Your task to perform on an android device: turn pop-ups off in chrome Image 0: 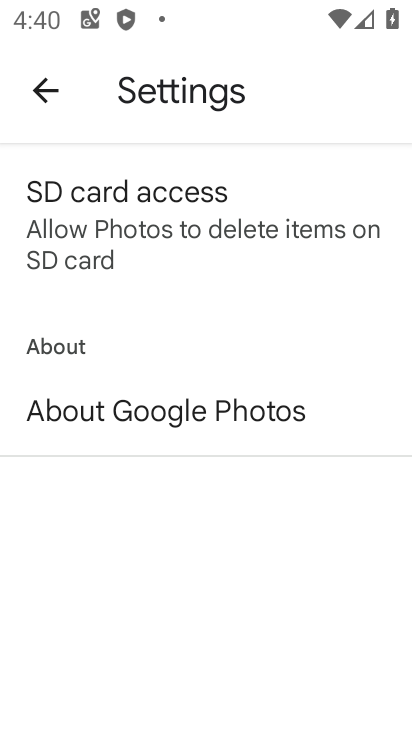
Step 0: press home button
Your task to perform on an android device: turn pop-ups off in chrome Image 1: 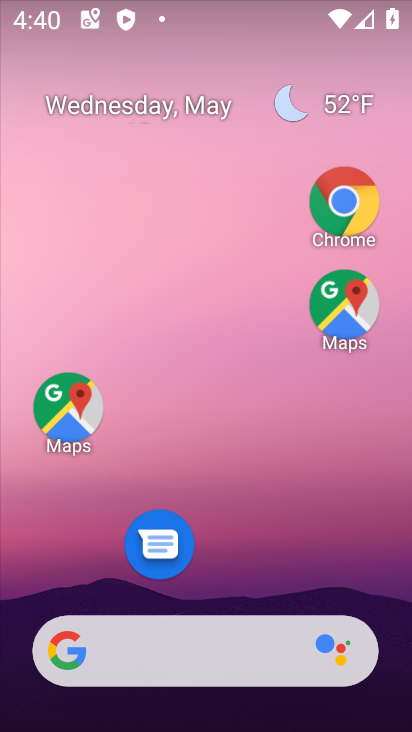
Step 1: click (251, 300)
Your task to perform on an android device: turn pop-ups off in chrome Image 2: 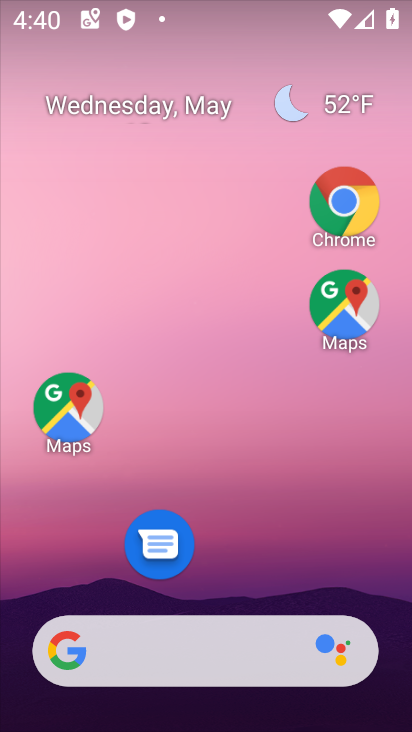
Step 2: drag from (231, 578) to (255, 143)
Your task to perform on an android device: turn pop-ups off in chrome Image 3: 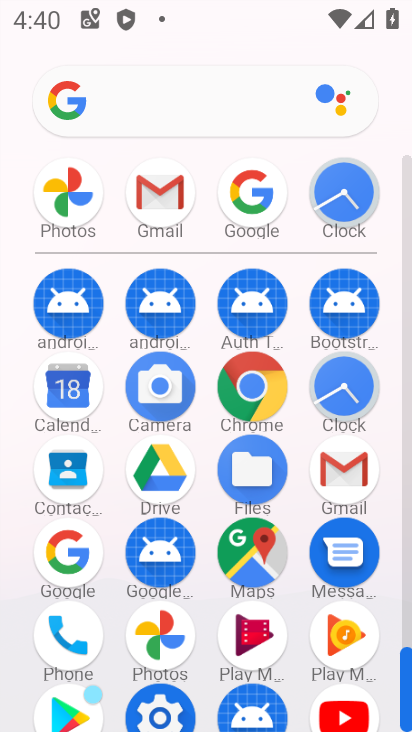
Step 3: click (236, 411)
Your task to perform on an android device: turn pop-ups off in chrome Image 4: 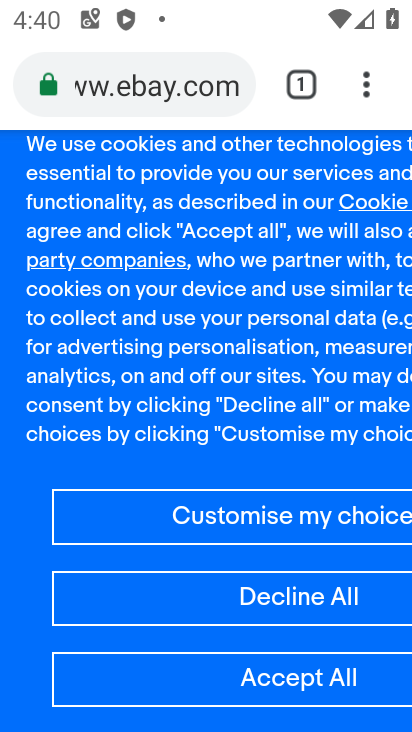
Step 4: click (370, 93)
Your task to perform on an android device: turn pop-ups off in chrome Image 5: 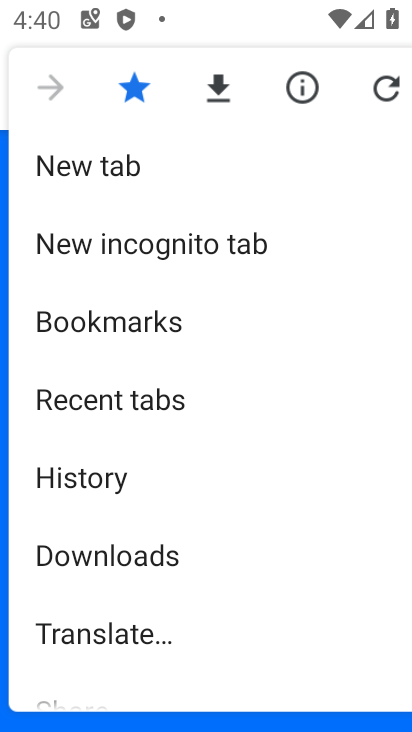
Step 5: drag from (139, 526) to (135, 104)
Your task to perform on an android device: turn pop-ups off in chrome Image 6: 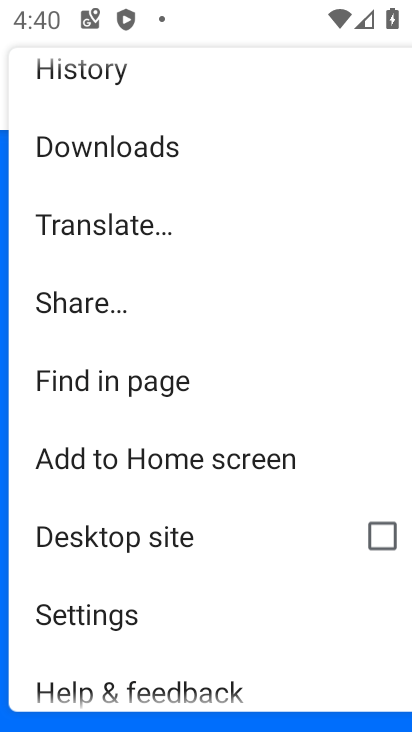
Step 6: click (110, 613)
Your task to perform on an android device: turn pop-ups off in chrome Image 7: 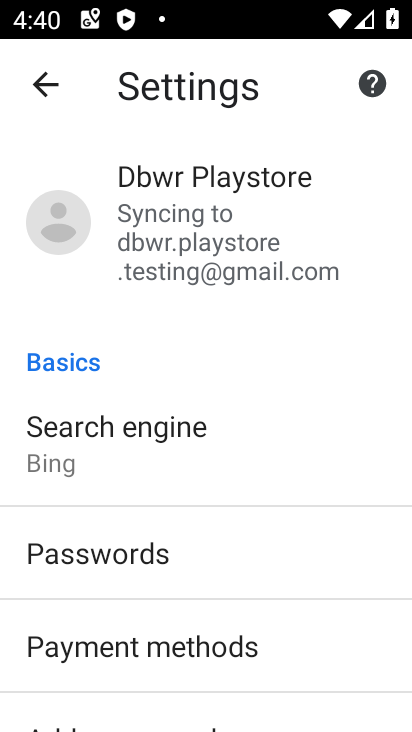
Step 7: drag from (116, 574) to (152, 257)
Your task to perform on an android device: turn pop-ups off in chrome Image 8: 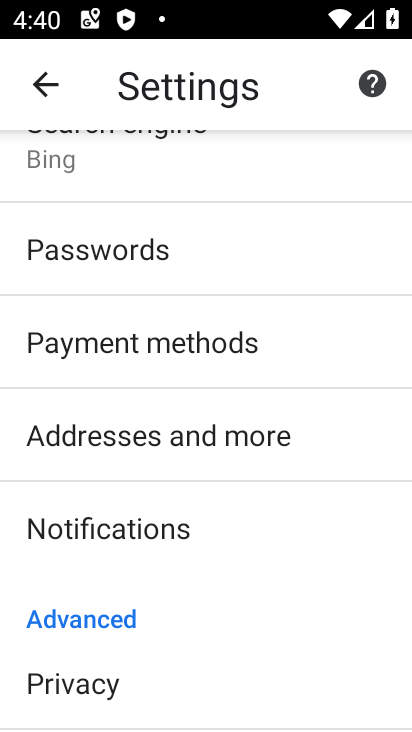
Step 8: drag from (151, 623) to (211, 288)
Your task to perform on an android device: turn pop-ups off in chrome Image 9: 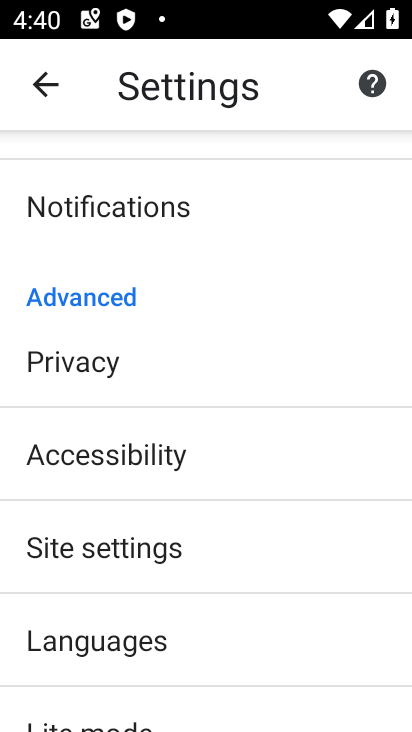
Step 9: click (108, 548)
Your task to perform on an android device: turn pop-ups off in chrome Image 10: 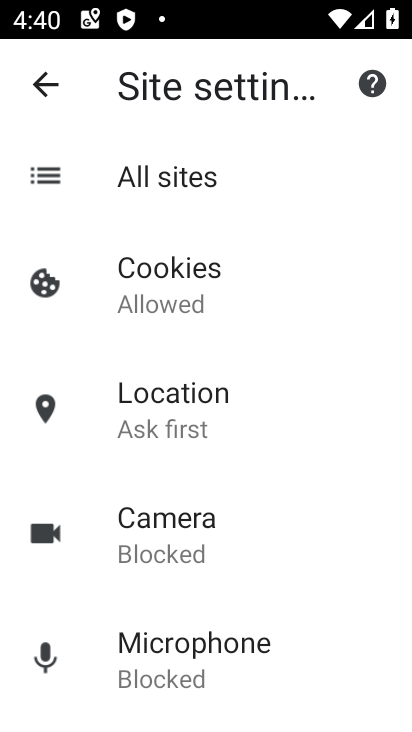
Step 10: drag from (148, 660) to (176, 370)
Your task to perform on an android device: turn pop-ups off in chrome Image 11: 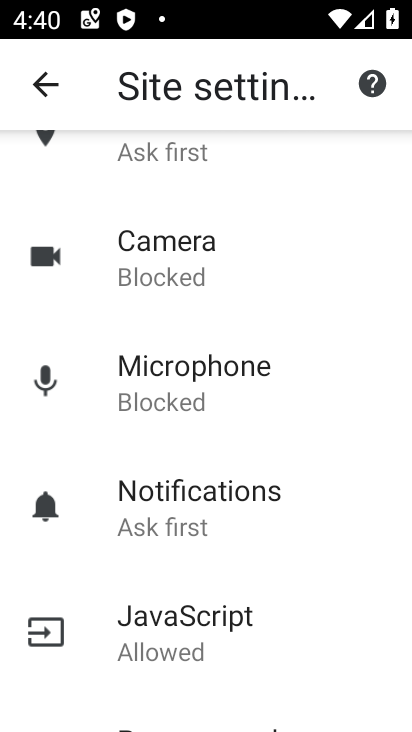
Step 11: drag from (157, 641) to (194, 363)
Your task to perform on an android device: turn pop-ups off in chrome Image 12: 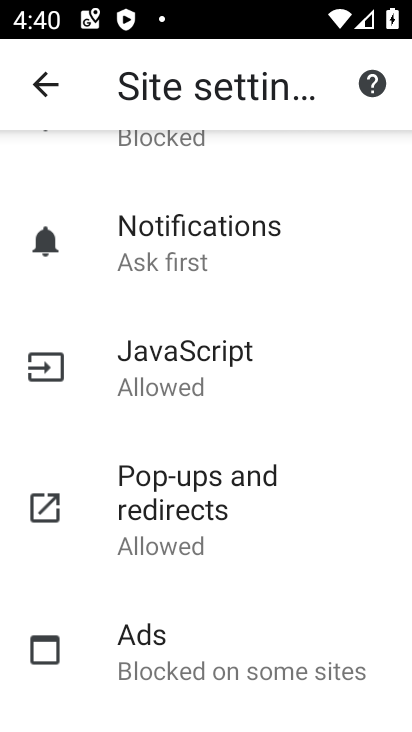
Step 12: click (181, 535)
Your task to perform on an android device: turn pop-ups off in chrome Image 13: 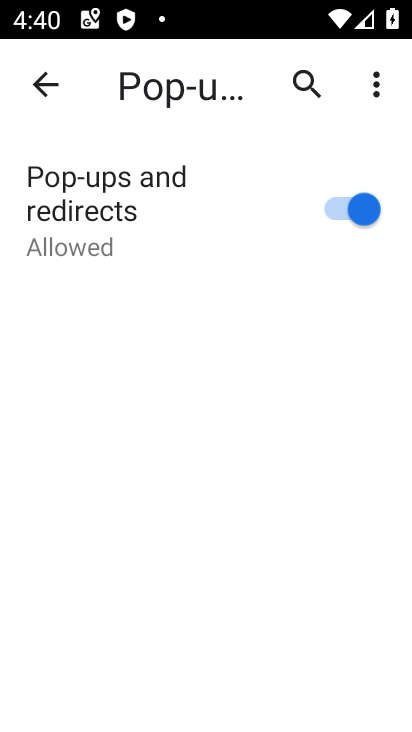
Step 13: click (325, 212)
Your task to perform on an android device: turn pop-ups off in chrome Image 14: 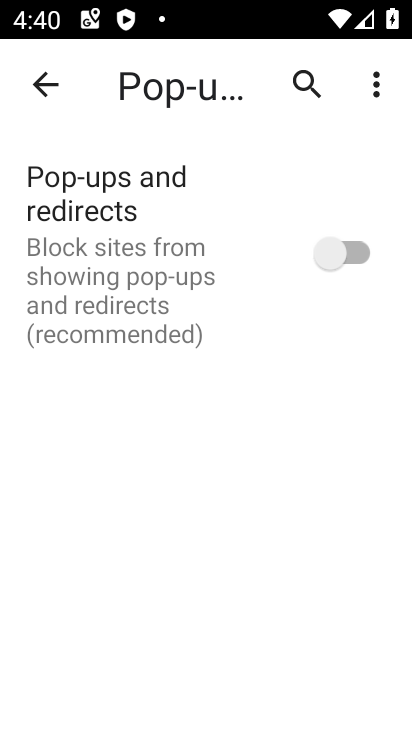
Step 14: task complete